Your task to perform on an android device: Search for Mexican restaurants on Maps Image 0: 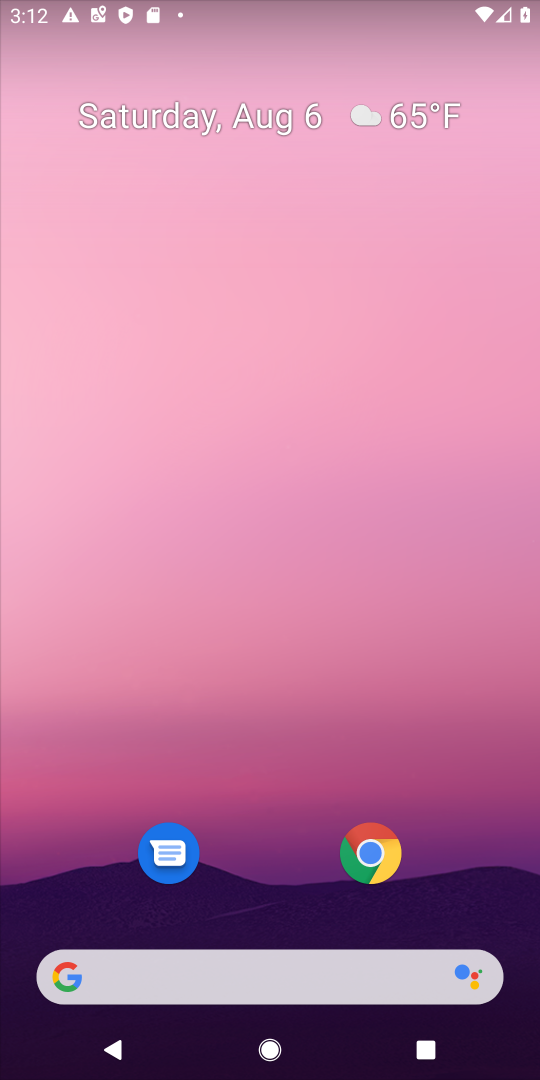
Step 0: drag from (244, 886) to (356, 136)
Your task to perform on an android device: Search for Mexican restaurants on Maps Image 1: 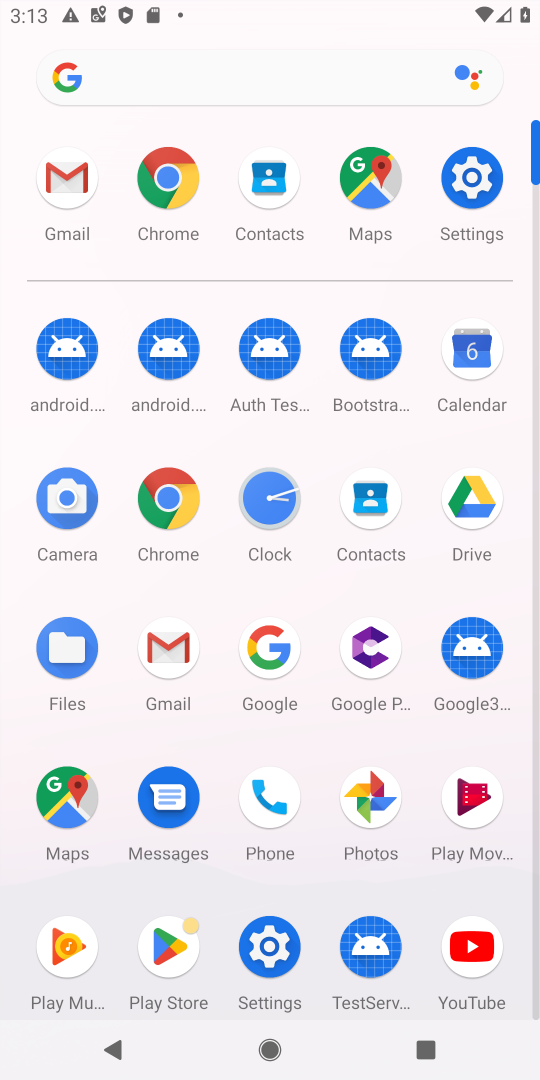
Step 1: click (352, 175)
Your task to perform on an android device: Search for Mexican restaurants on Maps Image 2: 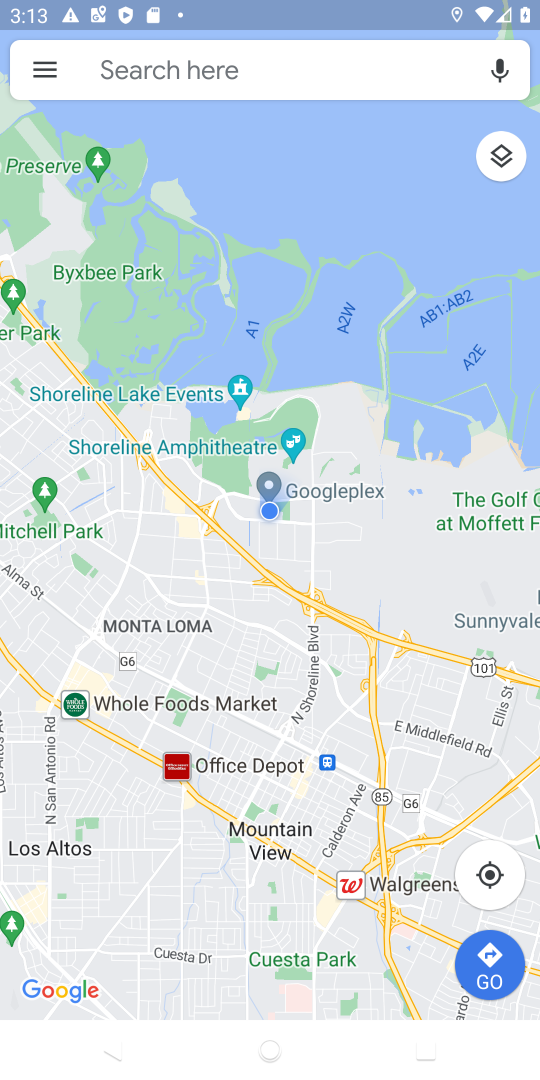
Step 2: click (359, 72)
Your task to perform on an android device: Search for Mexican restaurants on Maps Image 3: 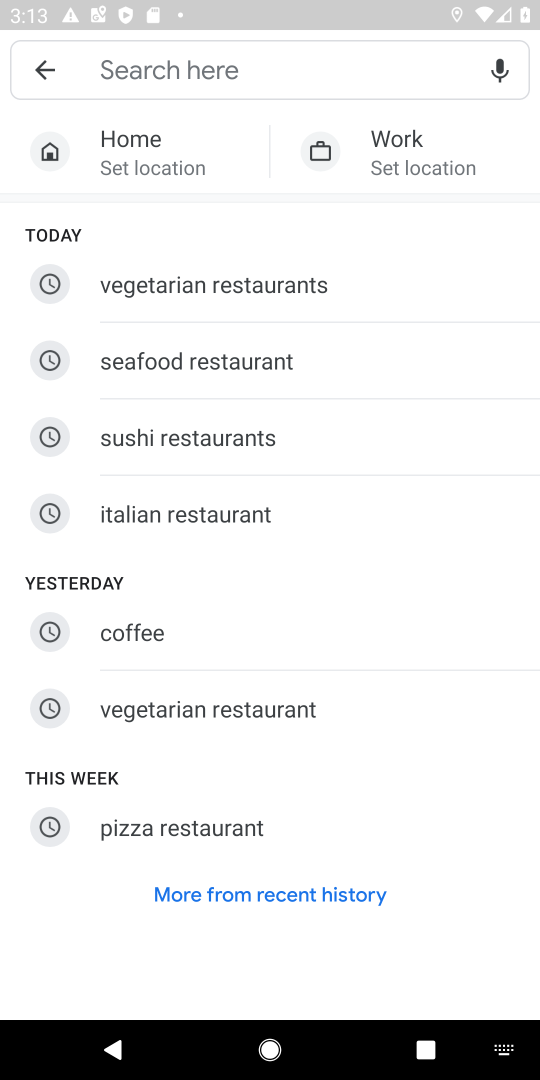
Step 3: click (143, 60)
Your task to perform on an android device: Search for Mexican restaurants on Maps Image 4: 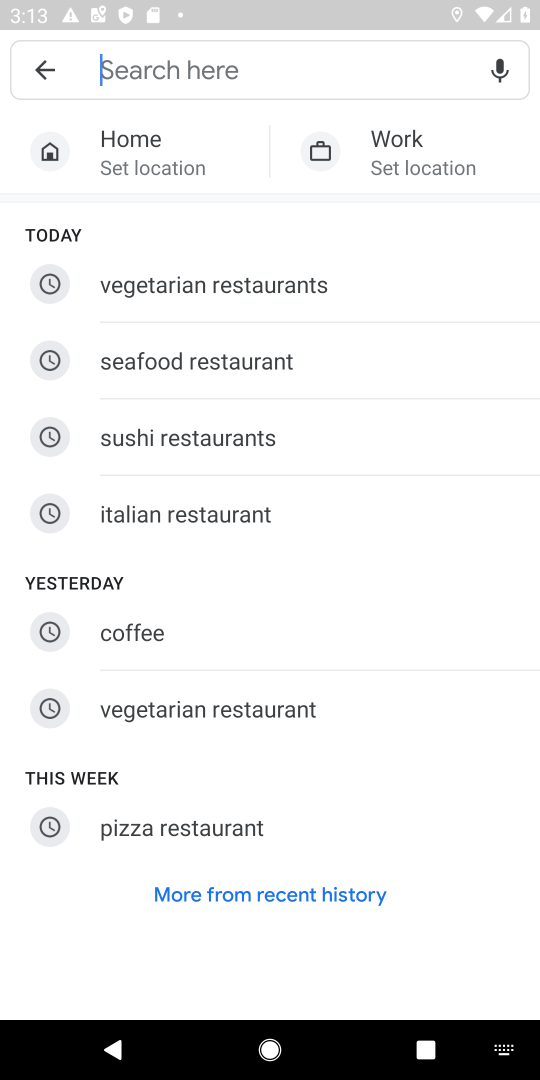
Step 4: type "mexican restaurants"
Your task to perform on an android device: Search for Mexican restaurants on Maps Image 5: 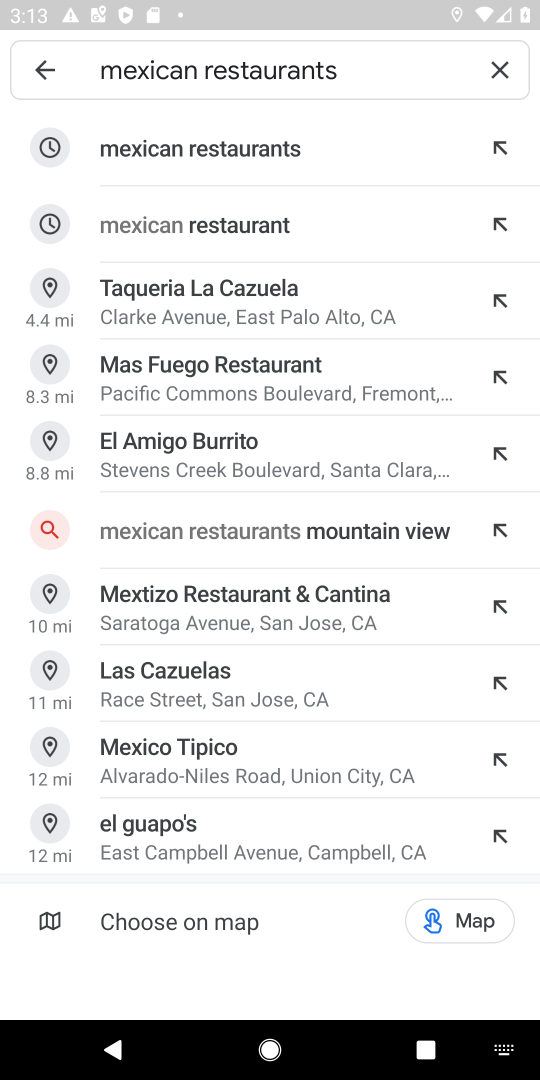
Step 5: click (286, 145)
Your task to perform on an android device: Search for Mexican restaurants on Maps Image 6: 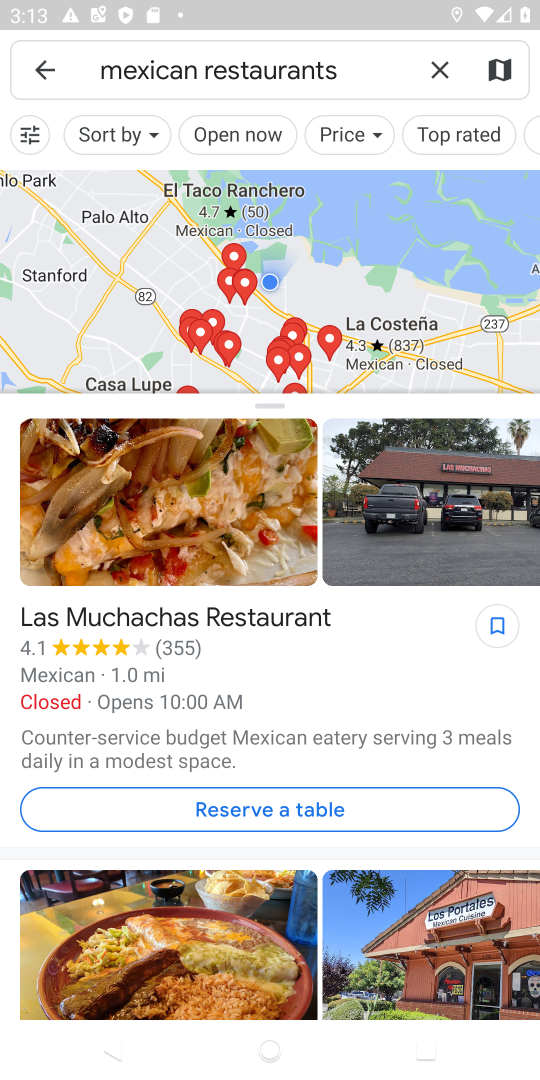
Step 6: task complete